Your task to perform on an android device: Open calendar and show me the third week of next month Image 0: 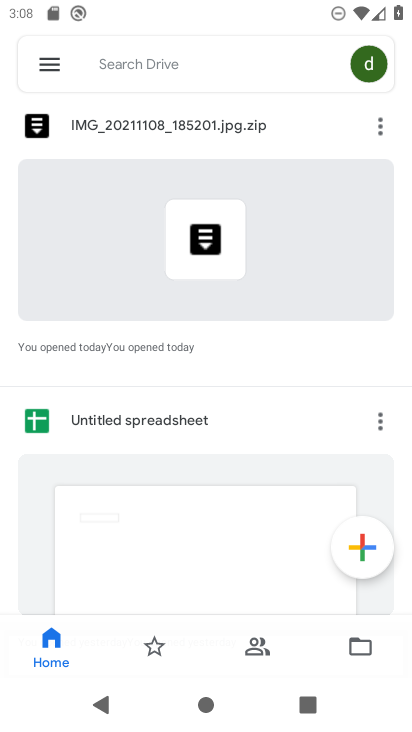
Step 0: press back button
Your task to perform on an android device: Open calendar and show me the third week of next month Image 1: 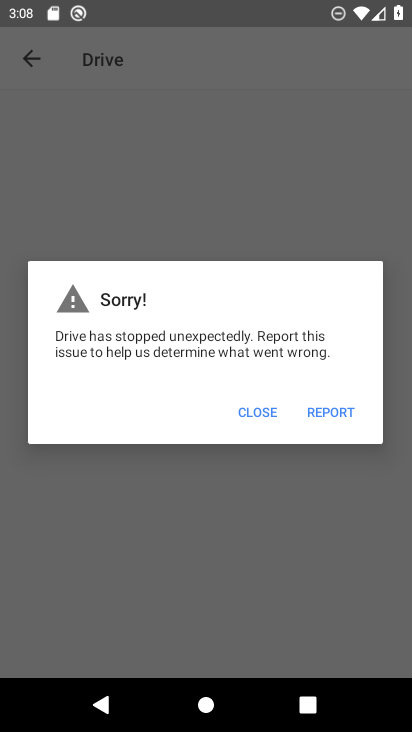
Step 1: press home button
Your task to perform on an android device: Open calendar and show me the third week of next month Image 2: 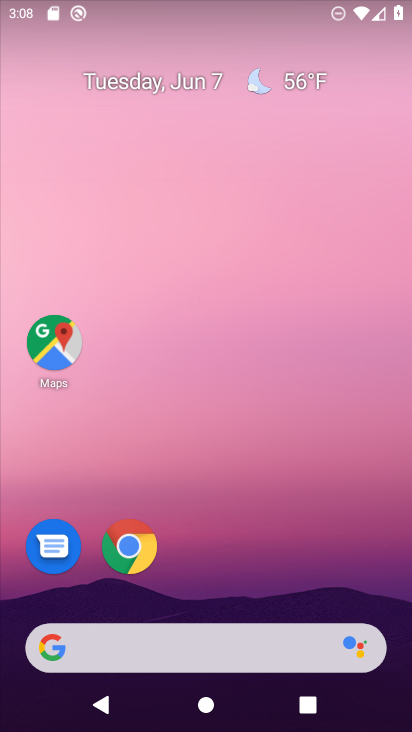
Step 2: drag from (265, 563) to (248, 27)
Your task to perform on an android device: Open calendar and show me the third week of next month Image 3: 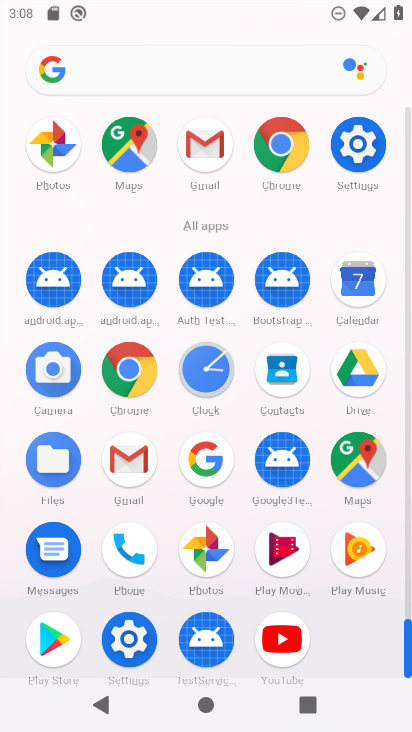
Step 3: drag from (9, 577) to (19, 229)
Your task to perform on an android device: Open calendar and show me the third week of next month Image 4: 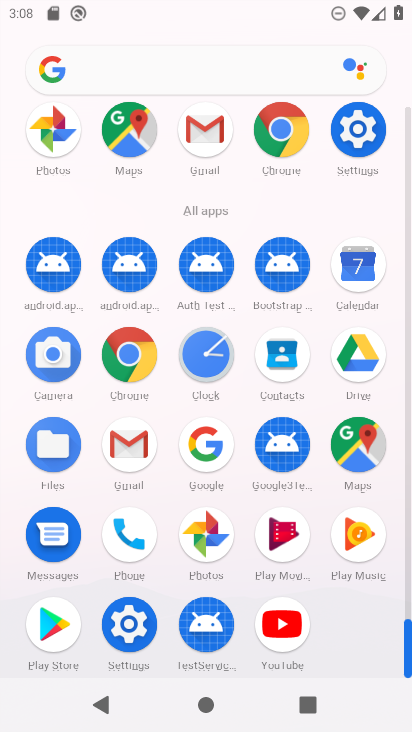
Step 4: click (357, 443)
Your task to perform on an android device: Open calendar and show me the third week of next month Image 5: 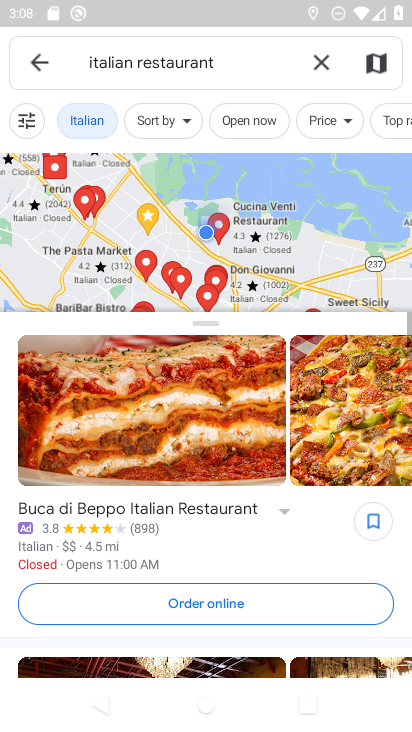
Step 5: click (41, 56)
Your task to perform on an android device: Open calendar and show me the third week of next month Image 6: 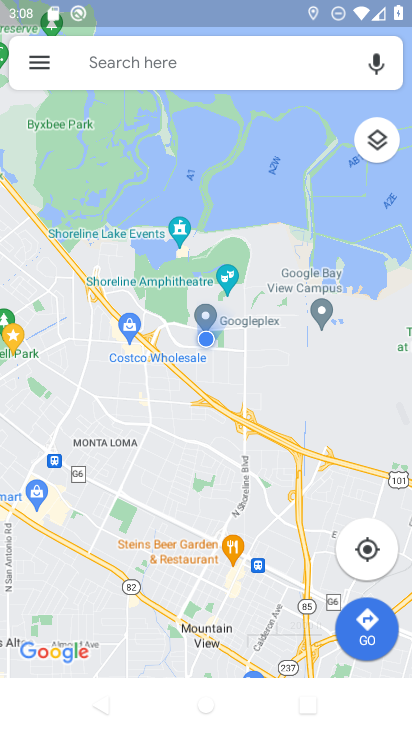
Step 6: press back button
Your task to perform on an android device: Open calendar and show me the third week of next month Image 7: 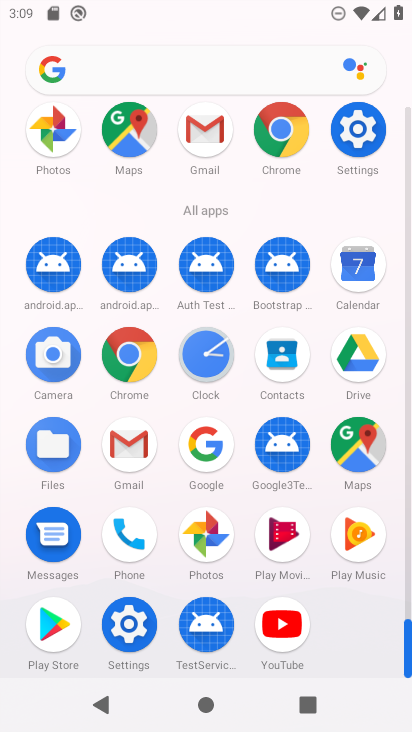
Step 7: click (353, 262)
Your task to perform on an android device: Open calendar and show me the third week of next month Image 8: 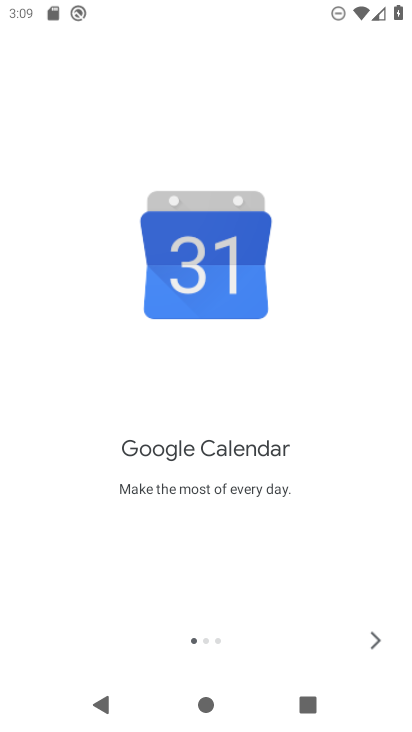
Step 8: click (373, 644)
Your task to perform on an android device: Open calendar and show me the third week of next month Image 9: 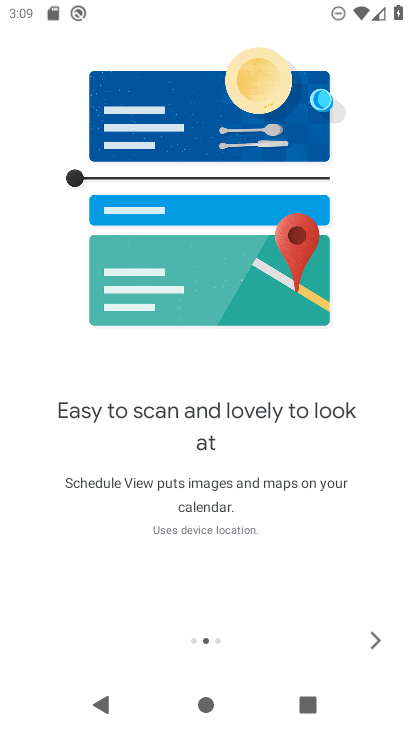
Step 9: click (373, 644)
Your task to perform on an android device: Open calendar and show me the third week of next month Image 10: 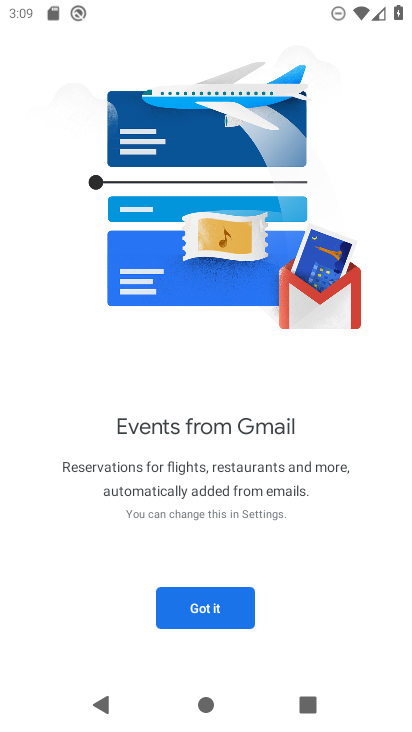
Step 10: click (234, 614)
Your task to perform on an android device: Open calendar and show me the third week of next month Image 11: 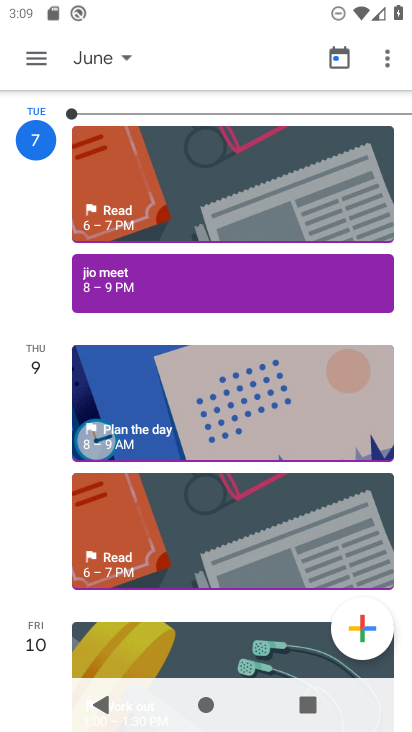
Step 11: click (101, 60)
Your task to perform on an android device: Open calendar and show me the third week of next month Image 12: 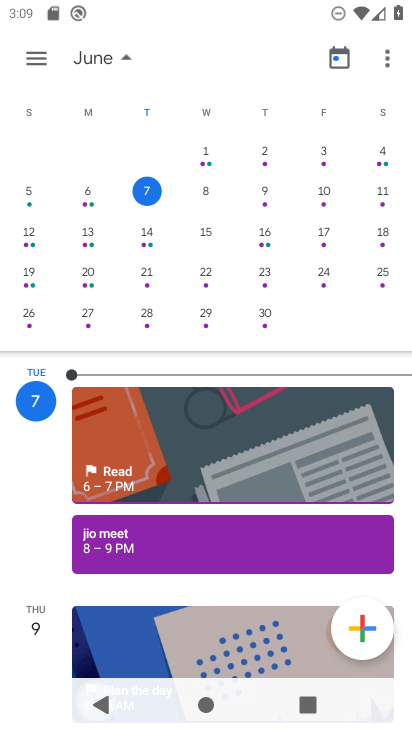
Step 12: drag from (383, 238) to (3, 274)
Your task to perform on an android device: Open calendar and show me the third week of next month Image 13: 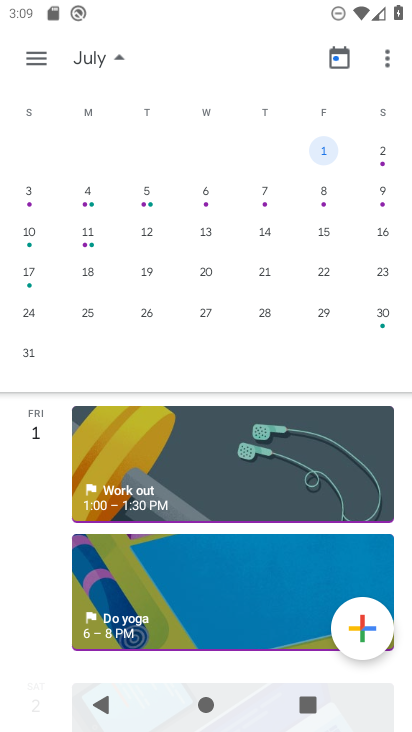
Step 13: click (28, 272)
Your task to perform on an android device: Open calendar and show me the third week of next month Image 14: 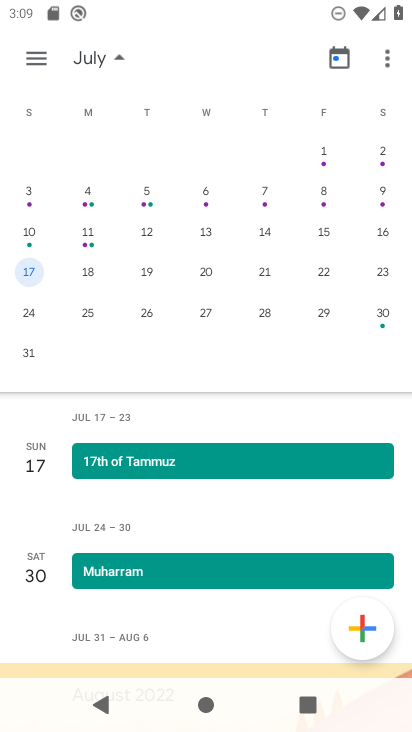
Step 14: click (39, 64)
Your task to perform on an android device: Open calendar and show me the third week of next month Image 15: 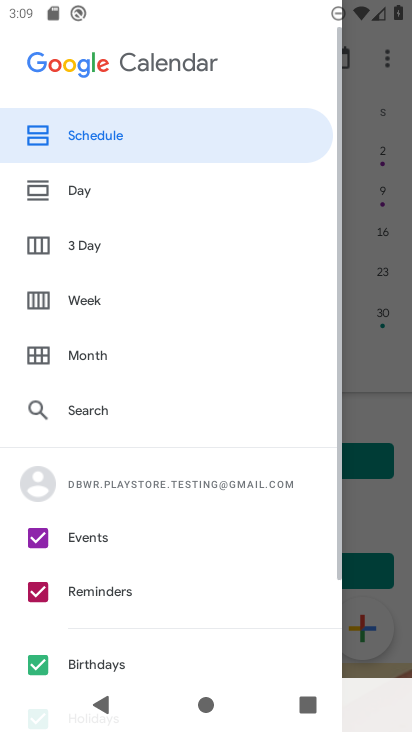
Step 15: click (116, 299)
Your task to perform on an android device: Open calendar and show me the third week of next month Image 16: 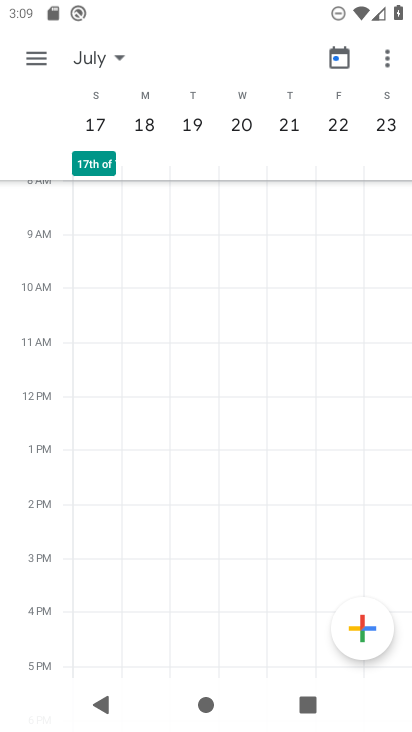
Step 16: task complete